Your task to perform on an android device: Check the news Image 0: 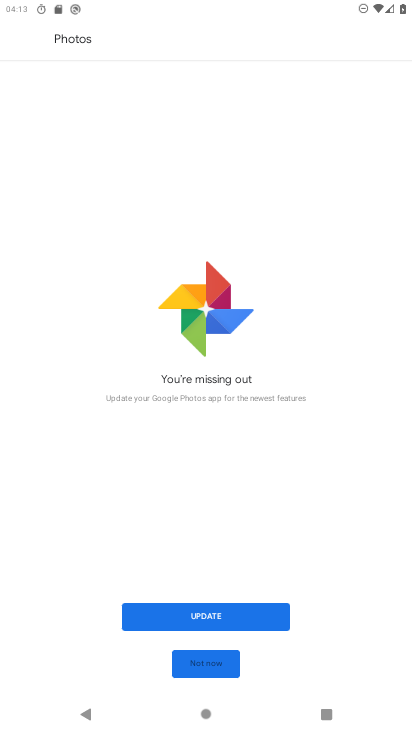
Step 0: press home button
Your task to perform on an android device: Check the news Image 1: 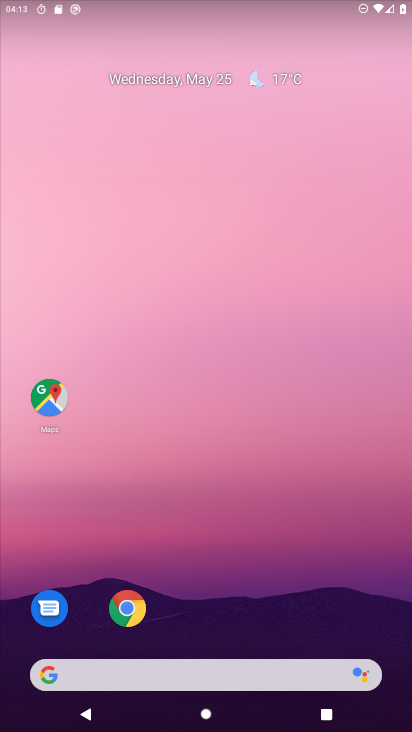
Step 1: click (123, 614)
Your task to perform on an android device: Check the news Image 2: 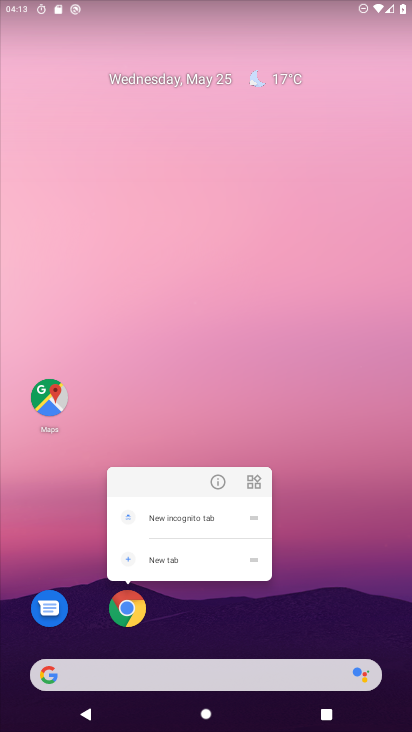
Step 2: click (384, 574)
Your task to perform on an android device: Check the news Image 3: 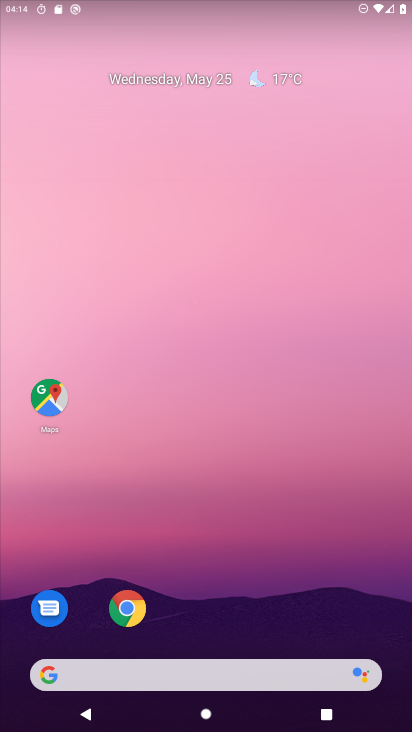
Step 3: drag from (356, 573) to (312, 115)
Your task to perform on an android device: Check the news Image 4: 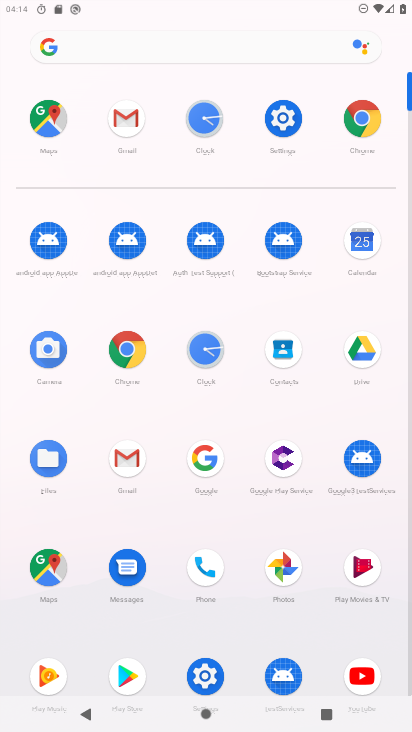
Step 4: click (122, 345)
Your task to perform on an android device: Check the news Image 5: 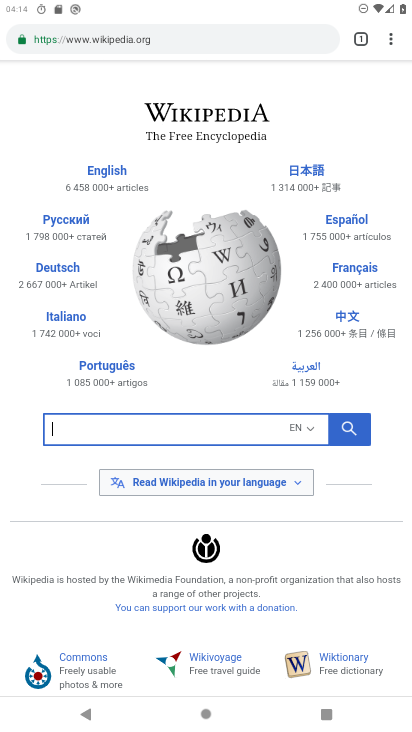
Step 5: click (201, 41)
Your task to perform on an android device: Check the news Image 6: 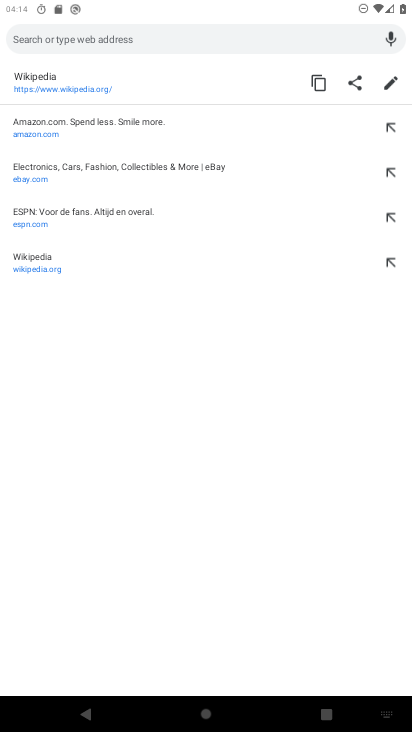
Step 6: type "news"
Your task to perform on an android device: Check the news Image 7: 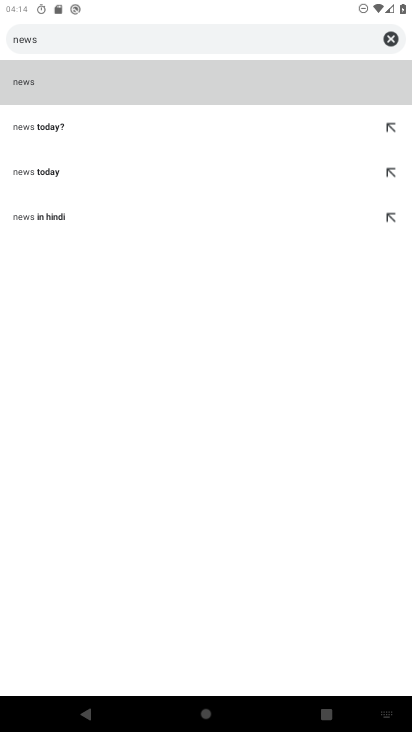
Step 7: click (31, 87)
Your task to perform on an android device: Check the news Image 8: 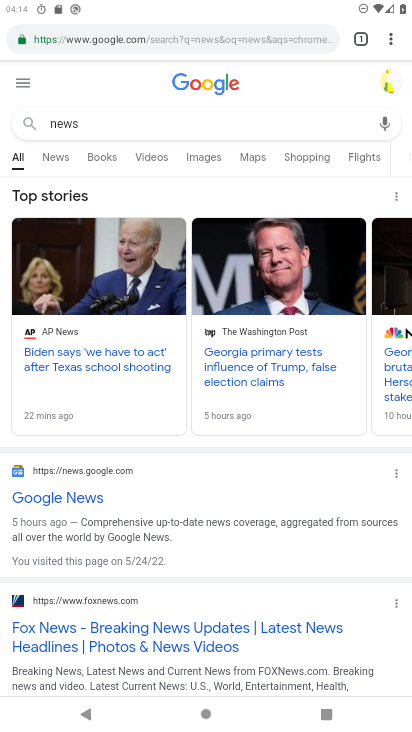
Step 8: click (66, 156)
Your task to perform on an android device: Check the news Image 9: 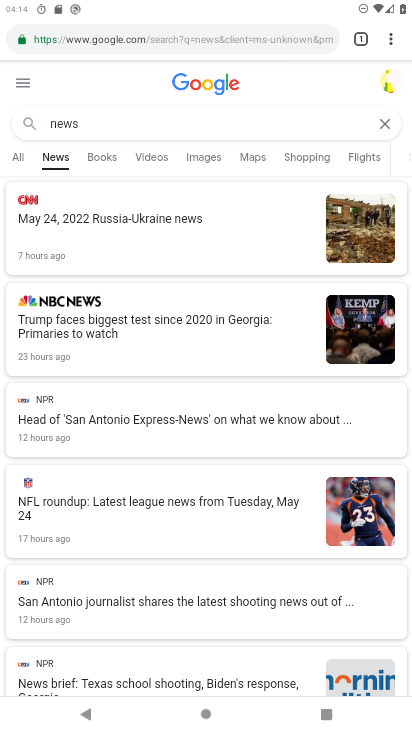
Step 9: task complete